Your task to perform on an android device: turn off location Image 0: 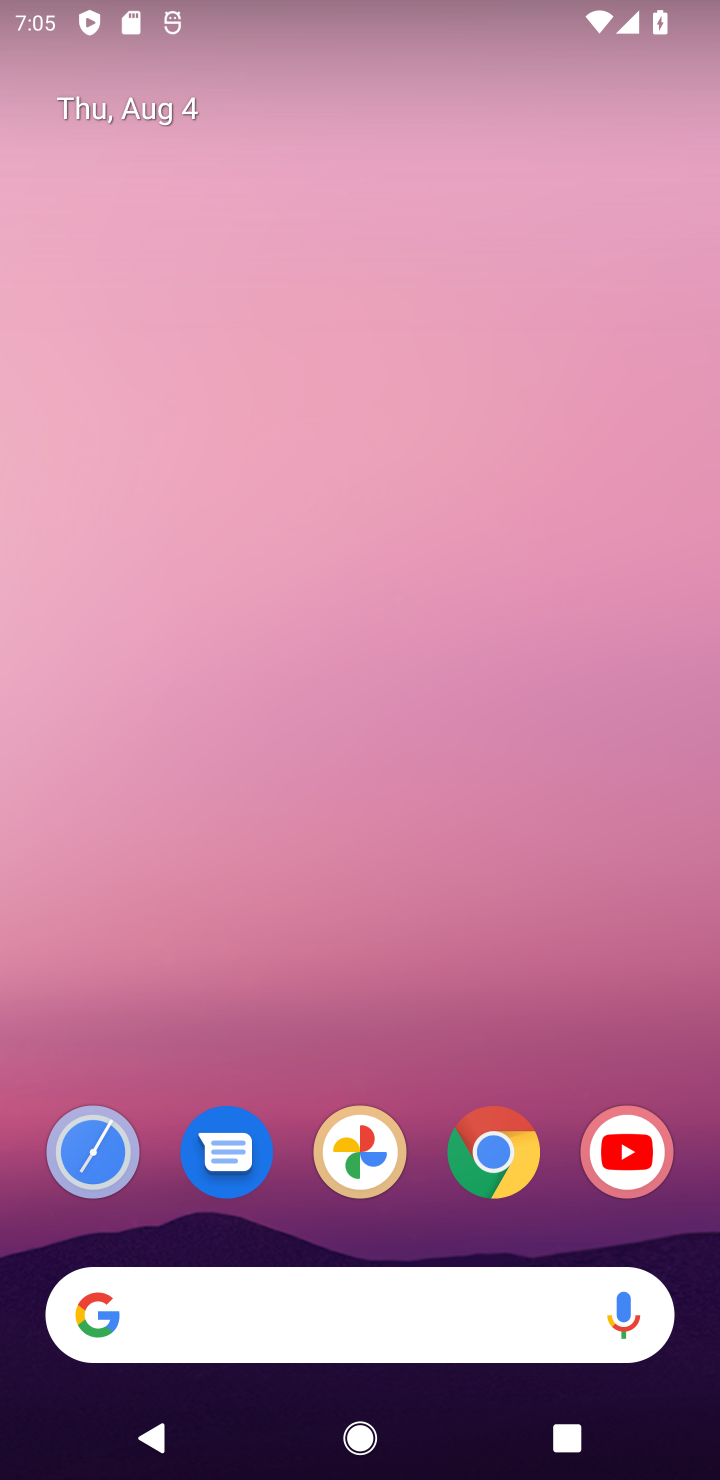
Step 0: press home button
Your task to perform on an android device: turn off location Image 1: 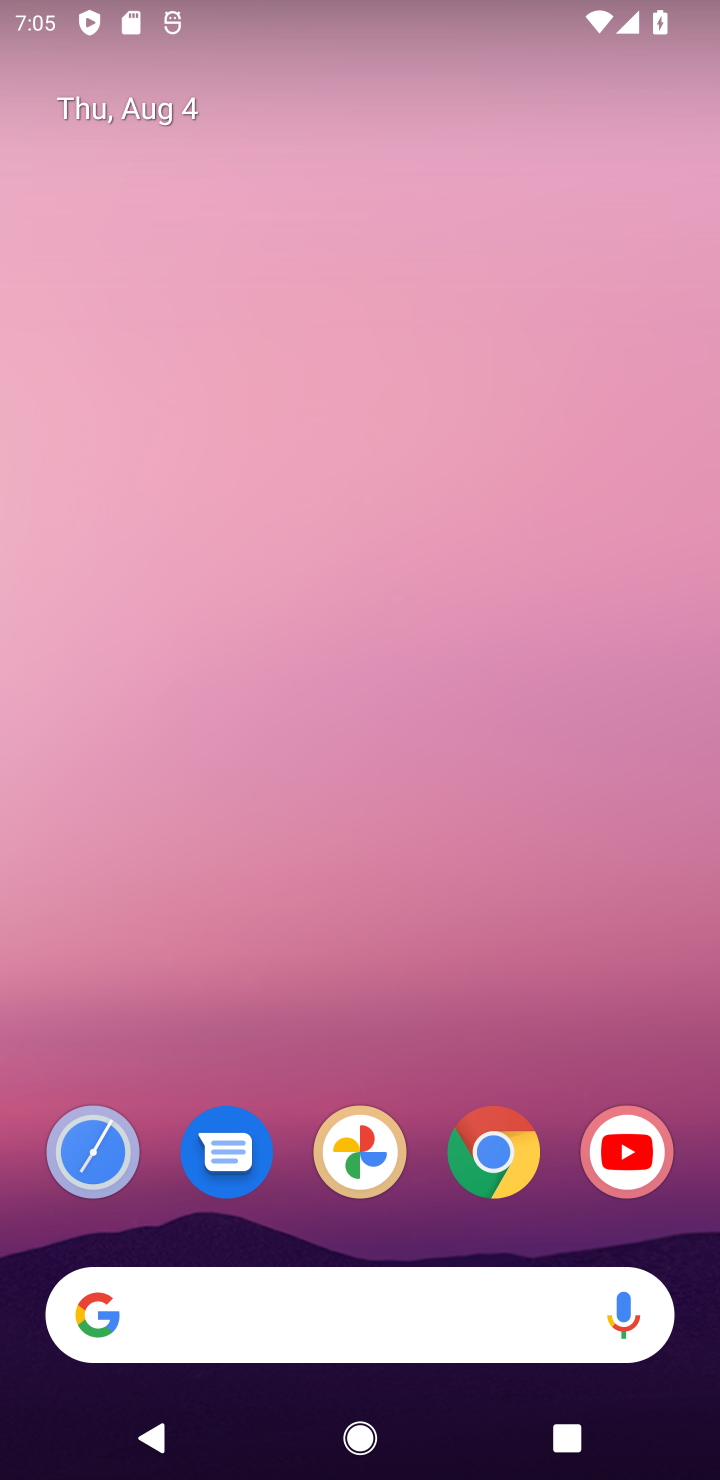
Step 1: drag from (62, 1202) to (424, 252)
Your task to perform on an android device: turn off location Image 2: 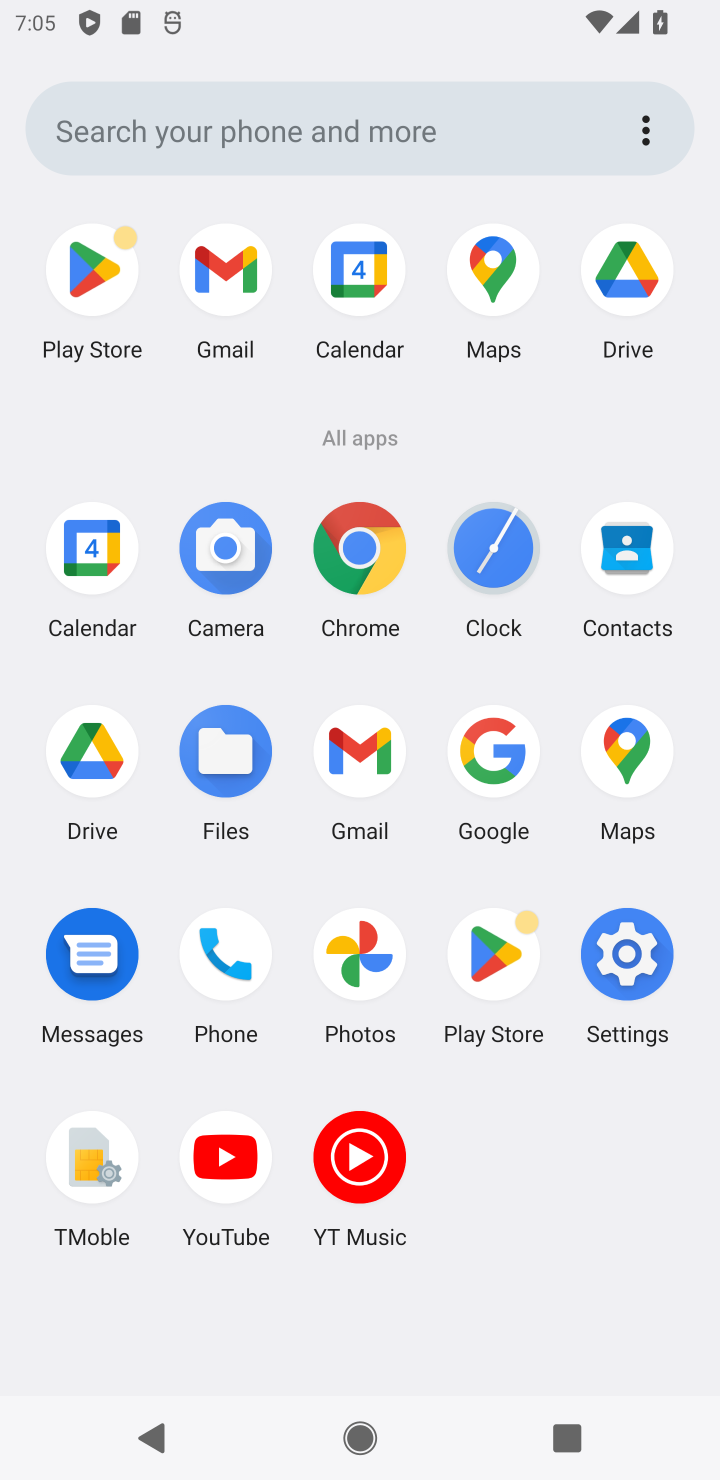
Step 2: click (606, 976)
Your task to perform on an android device: turn off location Image 3: 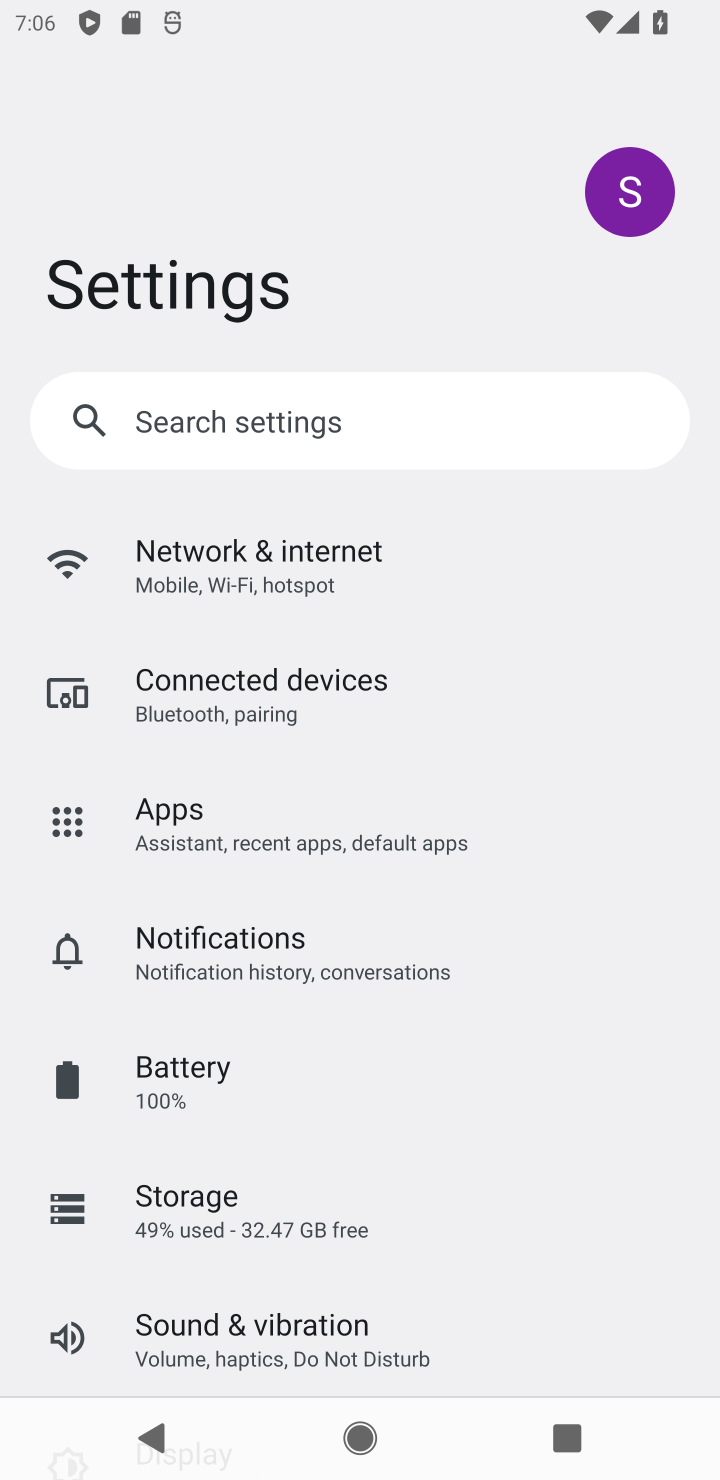
Step 3: drag from (43, 1020) to (248, 596)
Your task to perform on an android device: turn off location Image 4: 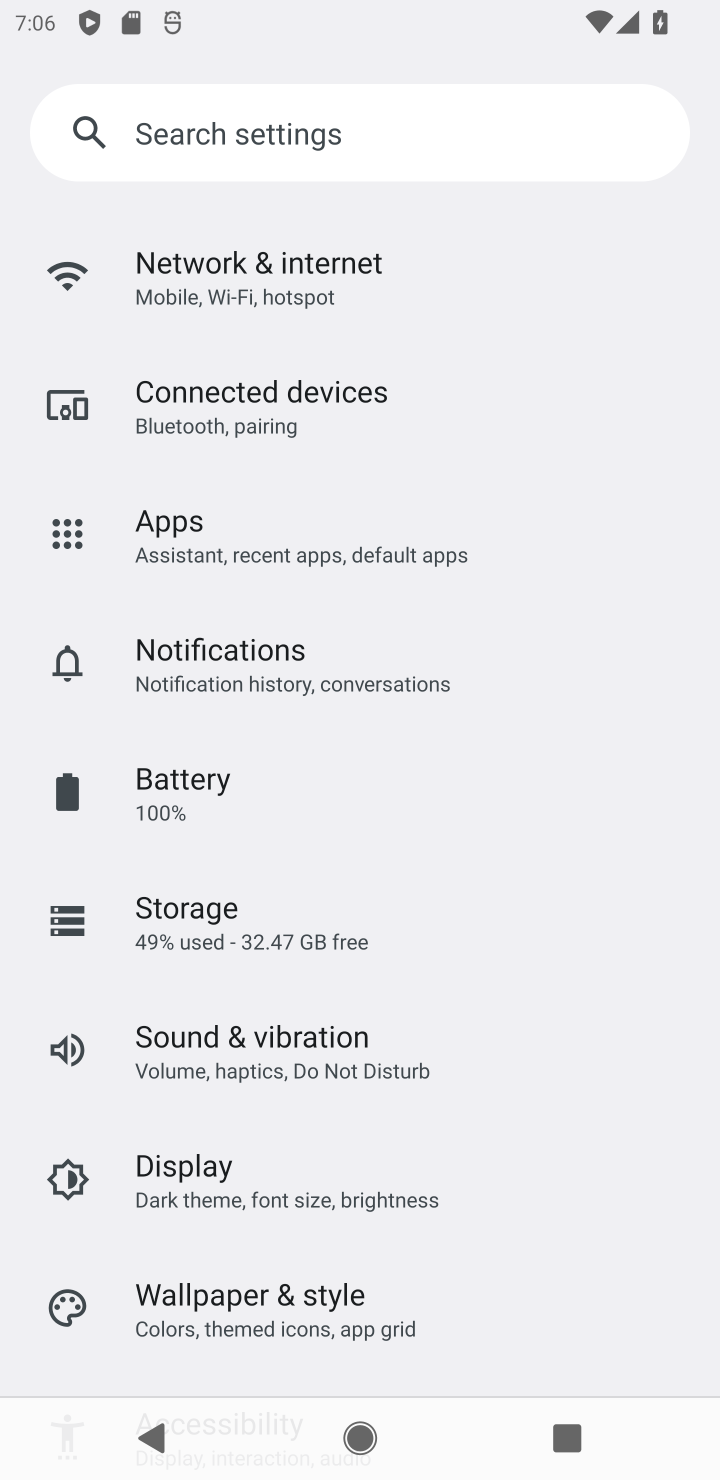
Step 4: drag from (54, 1012) to (273, 486)
Your task to perform on an android device: turn off location Image 5: 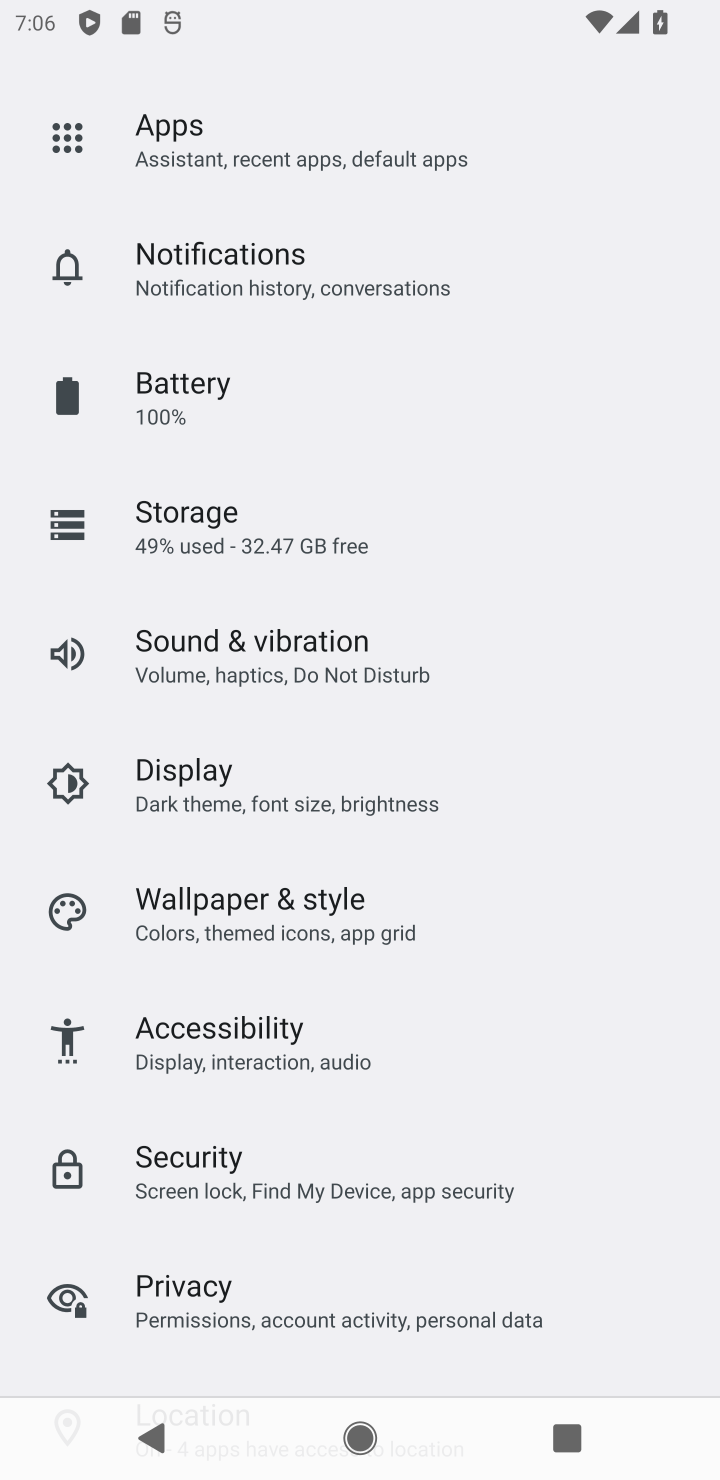
Step 5: drag from (45, 885) to (292, 239)
Your task to perform on an android device: turn off location Image 6: 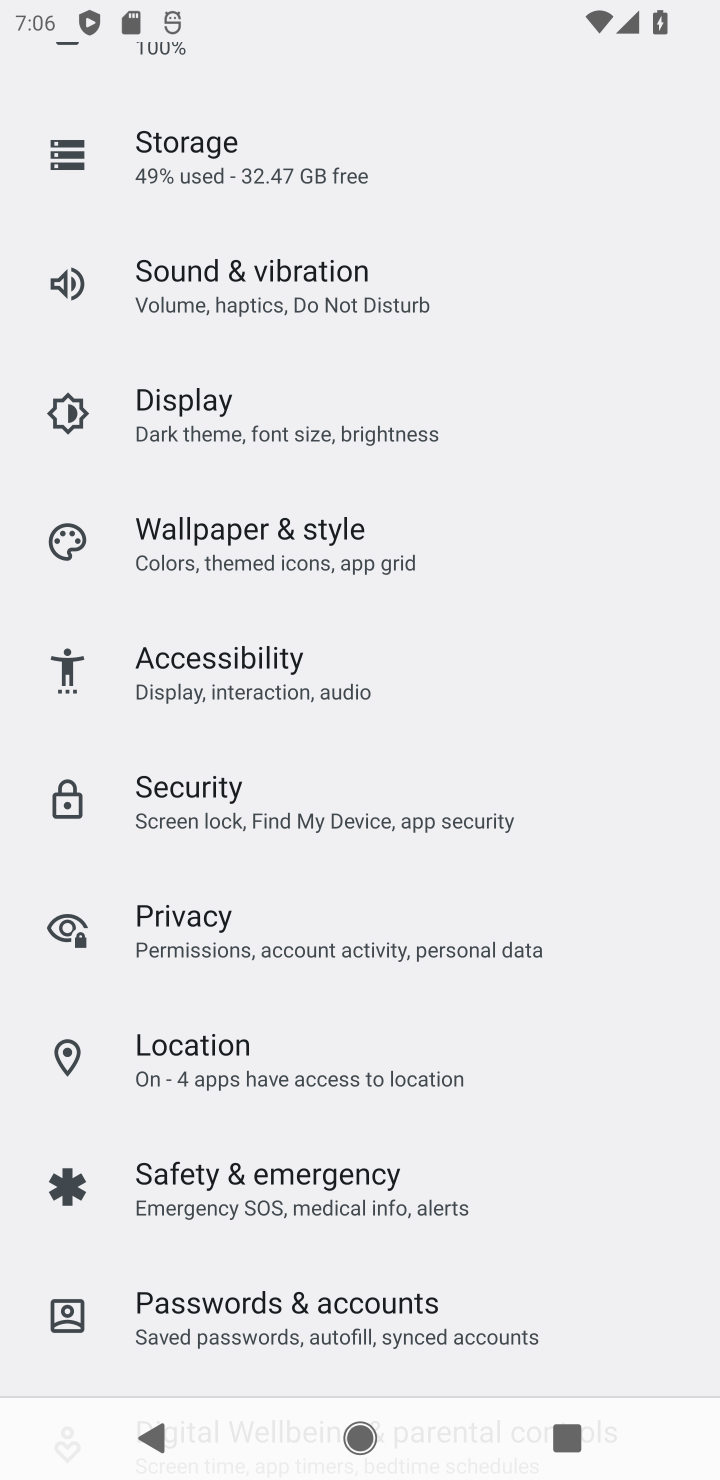
Step 6: click (225, 1056)
Your task to perform on an android device: turn off location Image 7: 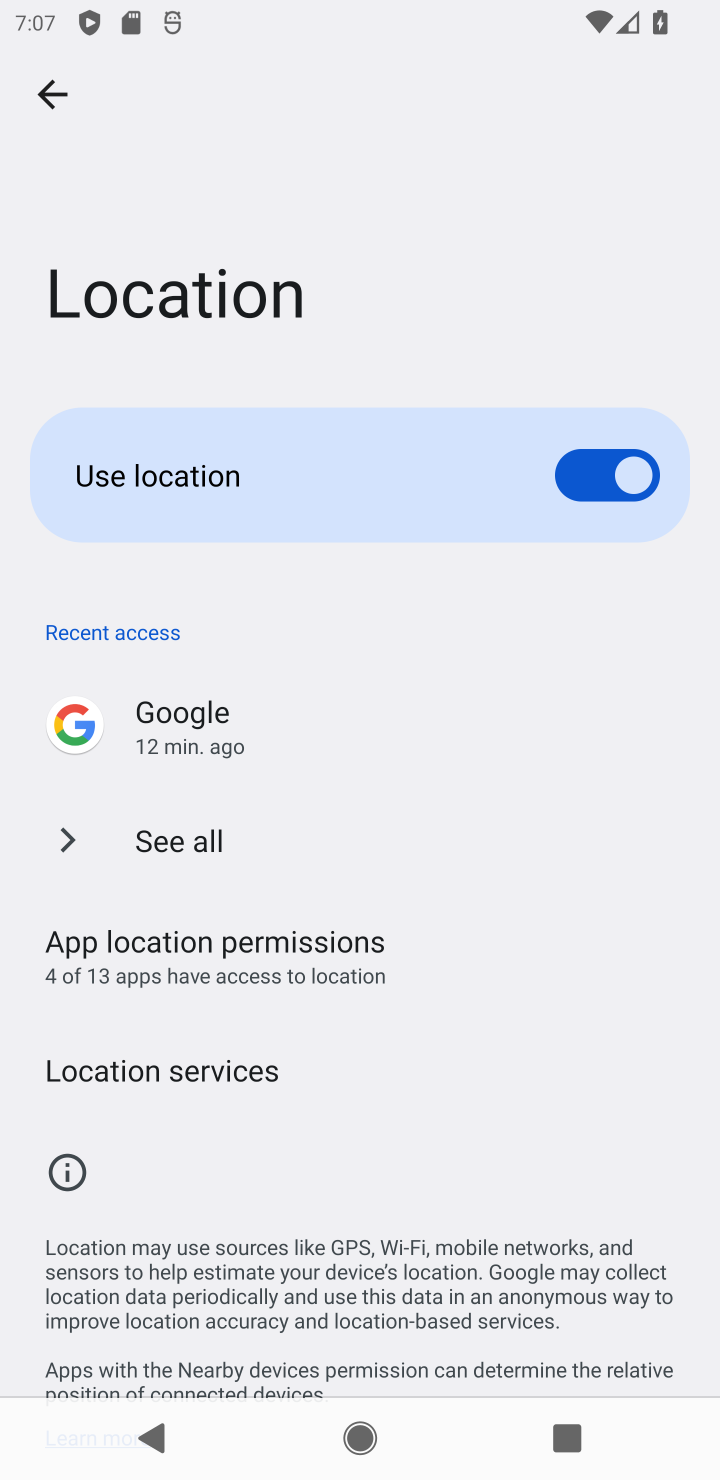
Step 7: task complete